Your task to perform on an android device: See recent photos Image 0: 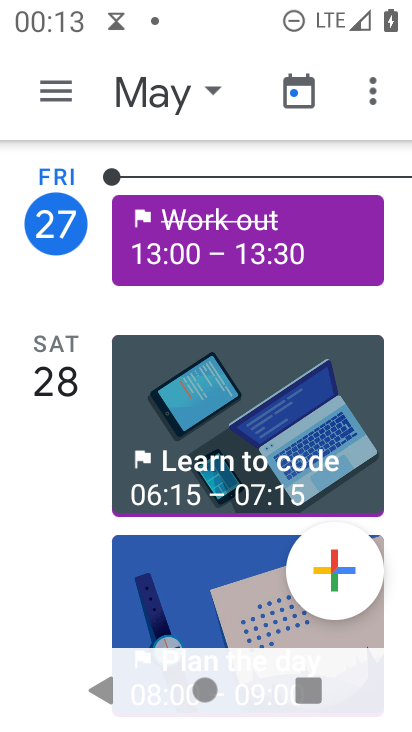
Step 0: press home button
Your task to perform on an android device: See recent photos Image 1: 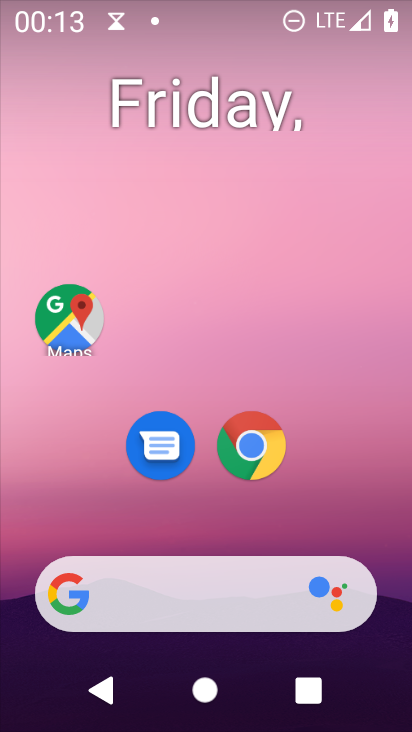
Step 1: drag from (218, 729) to (189, 58)
Your task to perform on an android device: See recent photos Image 2: 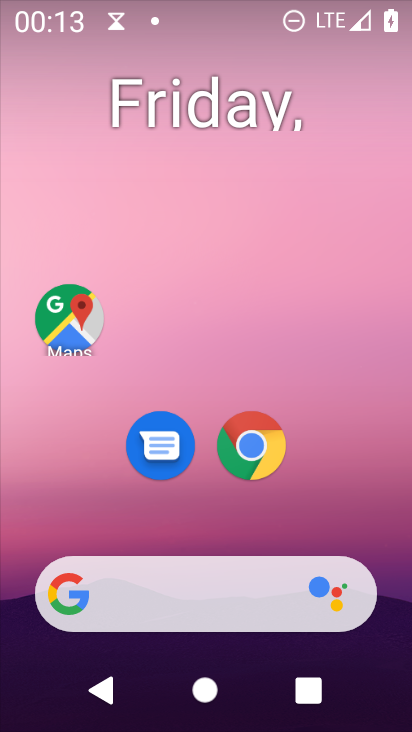
Step 2: drag from (225, 727) to (215, 13)
Your task to perform on an android device: See recent photos Image 3: 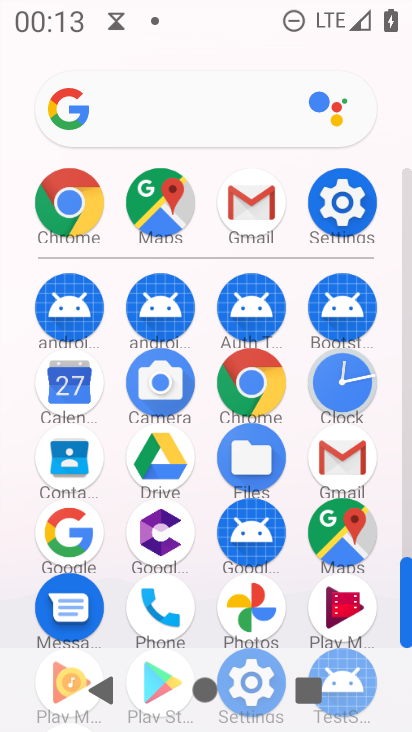
Step 3: click (248, 604)
Your task to perform on an android device: See recent photos Image 4: 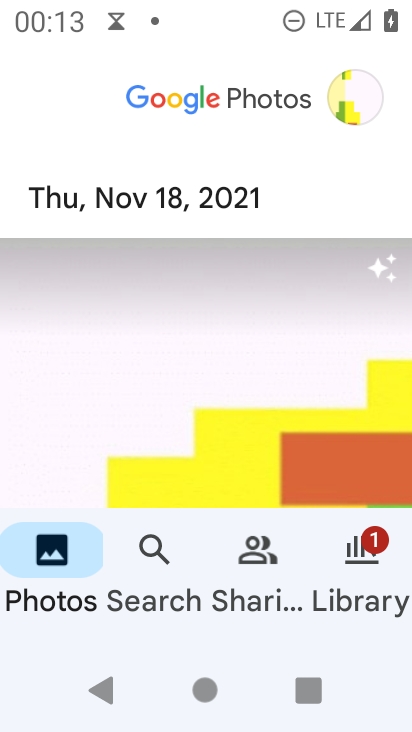
Step 4: drag from (213, 526) to (202, 68)
Your task to perform on an android device: See recent photos Image 5: 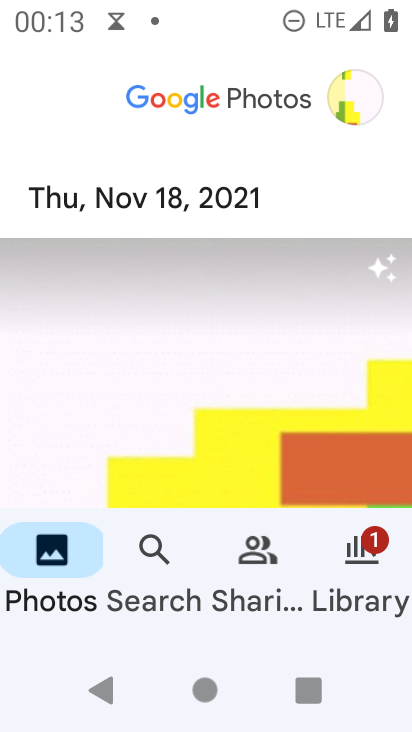
Step 5: click (263, 372)
Your task to perform on an android device: See recent photos Image 6: 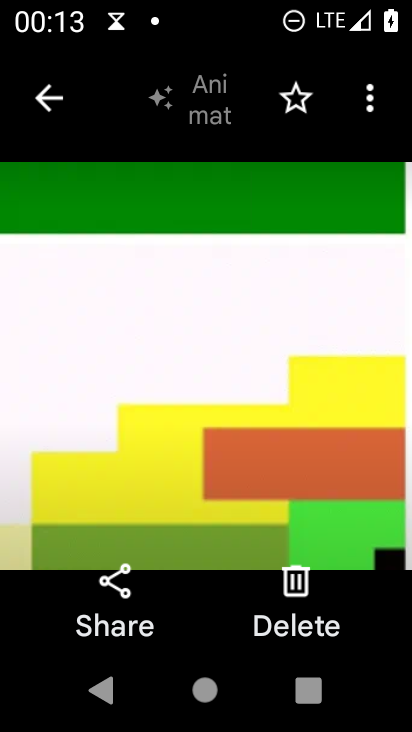
Step 6: task complete